Your task to perform on an android device: toggle show notifications on the lock screen Image 0: 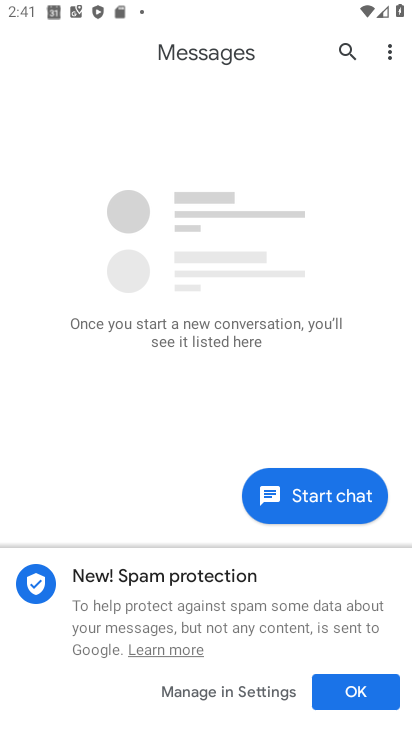
Step 0: press home button
Your task to perform on an android device: toggle show notifications on the lock screen Image 1: 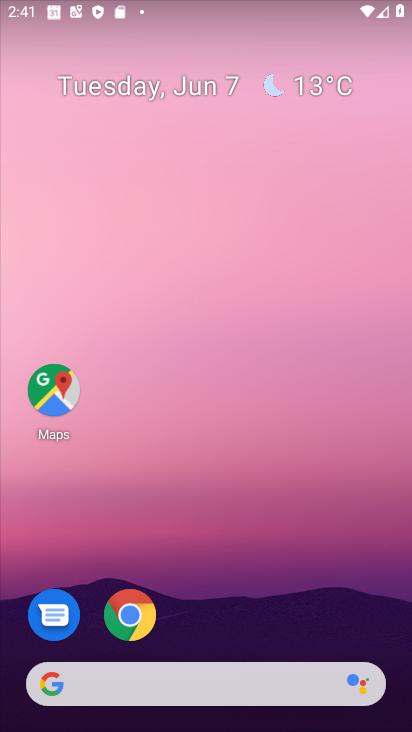
Step 1: drag from (193, 640) to (253, 211)
Your task to perform on an android device: toggle show notifications on the lock screen Image 2: 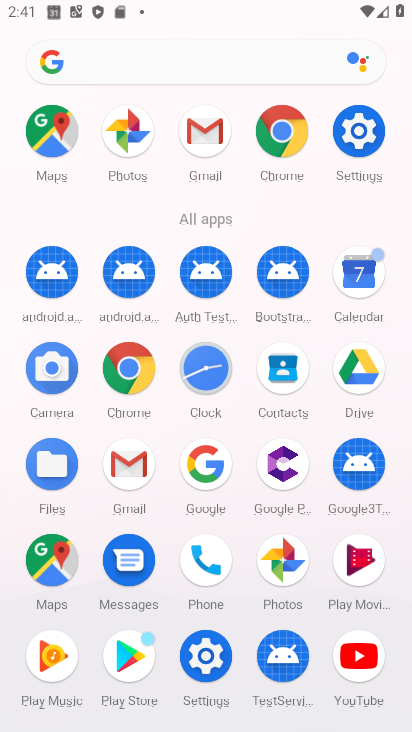
Step 2: drag from (148, 609) to (207, 478)
Your task to perform on an android device: toggle show notifications on the lock screen Image 3: 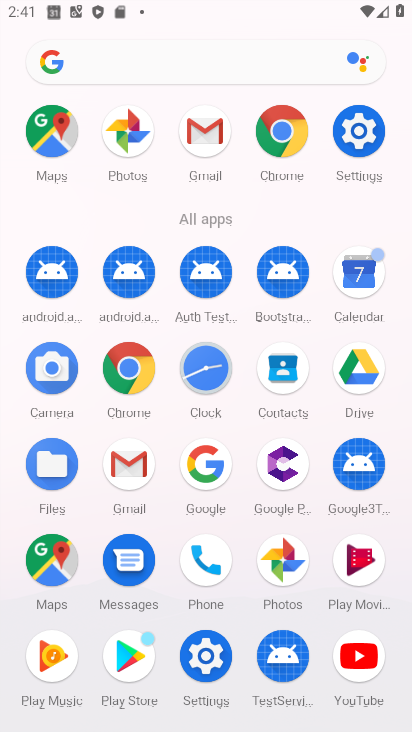
Step 3: click (200, 664)
Your task to perform on an android device: toggle show notifications on the lock screen Image 4: 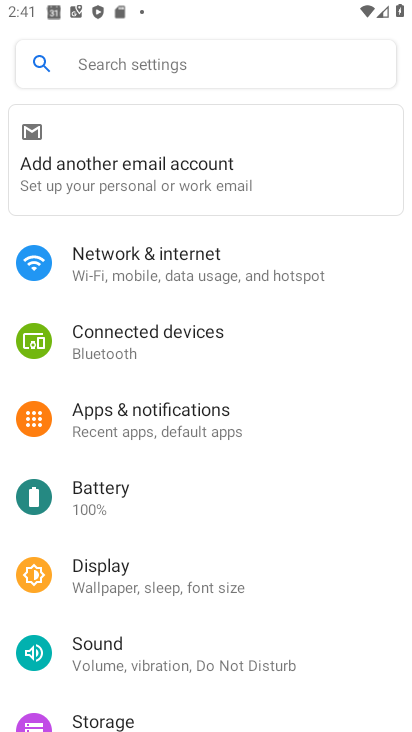
Step 4: click (173, 424)
Your task to perform on an android device: toggle show notifications on the lock screen Image 5: 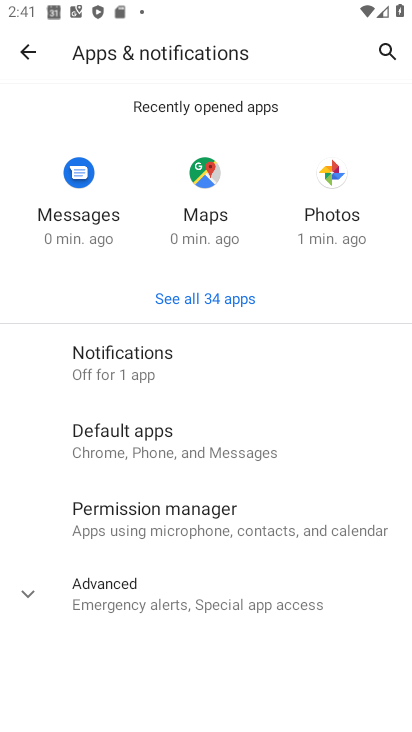
Step 5: click (192, 370)
Your task to perform on an android device: toggle show notifications on the lock screen Image 6: 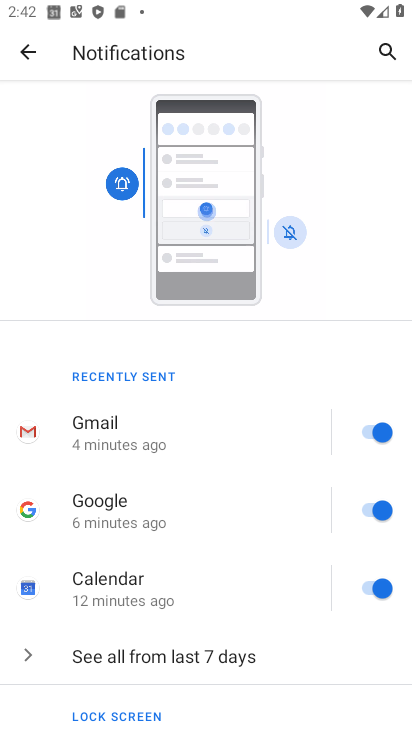
Step 6: drag from (153, 607) to (234, 256)
Your task to perform on an android device: toggle show notifications on the lock screen Image 7: 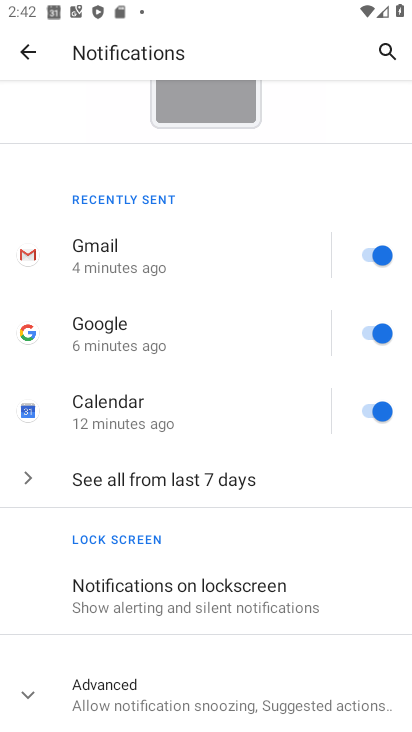
Step 7: click (172, 599)
Your task to perform on an android device: toggle show notifications on the lock screen Image 8: 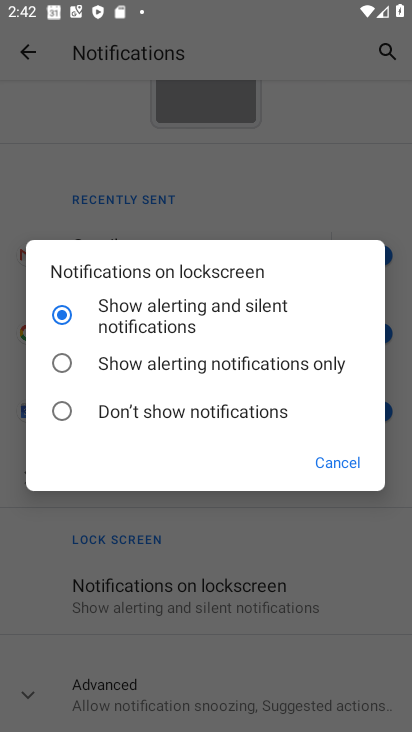
Step 8: click (175, 416)
Your task to perform on an android device: toggle show notifications on the lock screen Image 9: 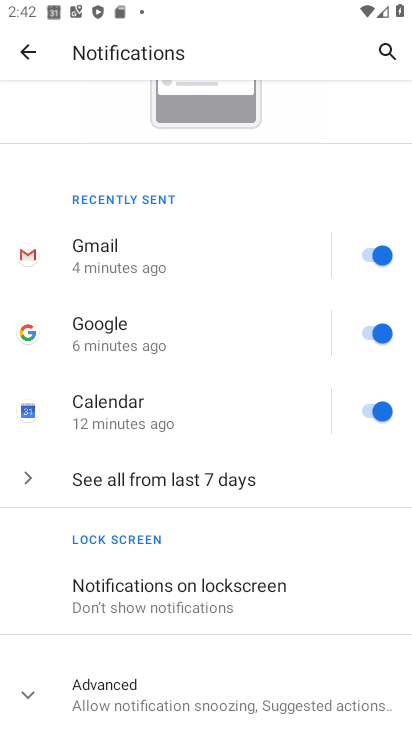
Step 9: task complete